Your task to perform on an android device: change notification settings in the gmail app Image 0: 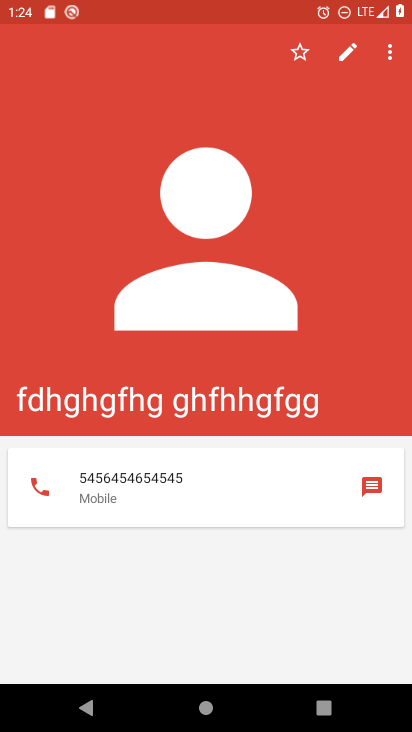
Step 0: press home button
Your task to perform on an android device: change notification settings in the gmail app Image 1: 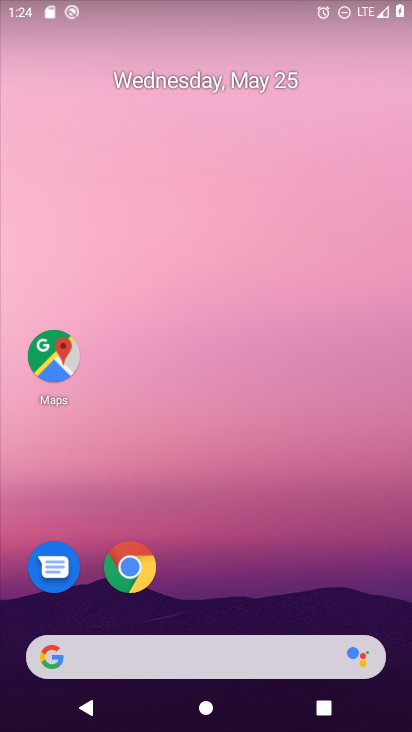
Step 1: drag from (395, 716) to (369, 213)
Your task to perform on an android device: change notification settings in the gmail app Image 2: 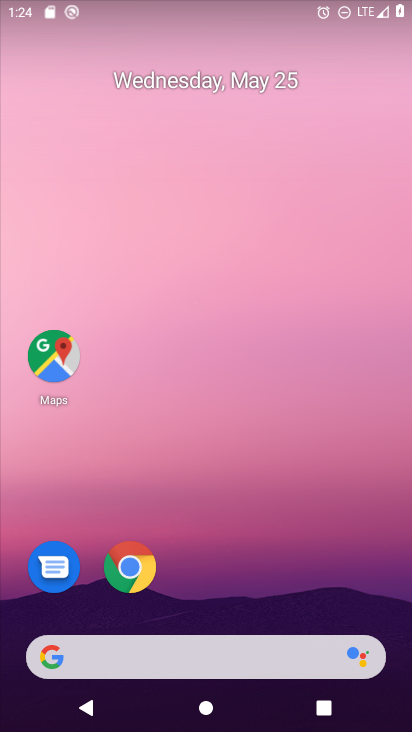
Step 2: drag from (402, 713) to (377, 323)
Your task to perform on an android device: change notification settings in the gmail app Image 3: 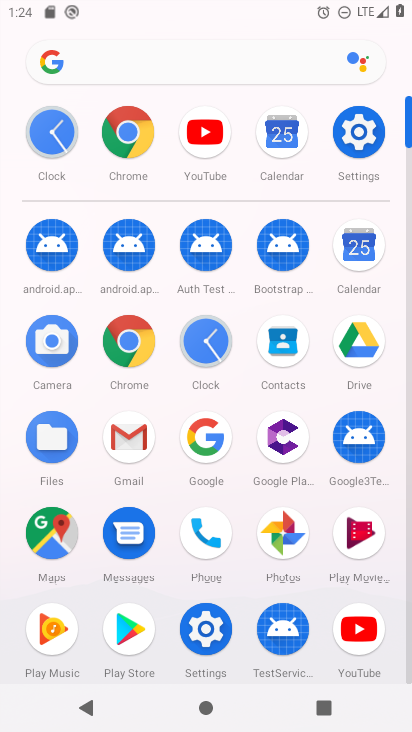
Step 3: click (132, 427)
Your task to perform on an android device: change notification settings in the gmail app Image 4: 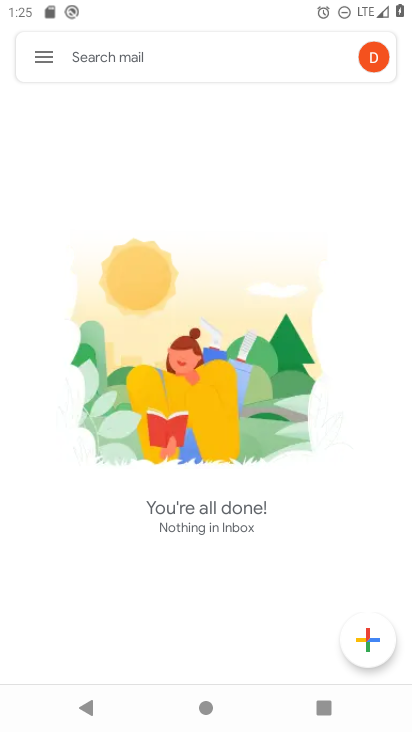
Step 4: click (44, 52)
Your task to perform on an android device: change notification settings in the gmail app Image 5: 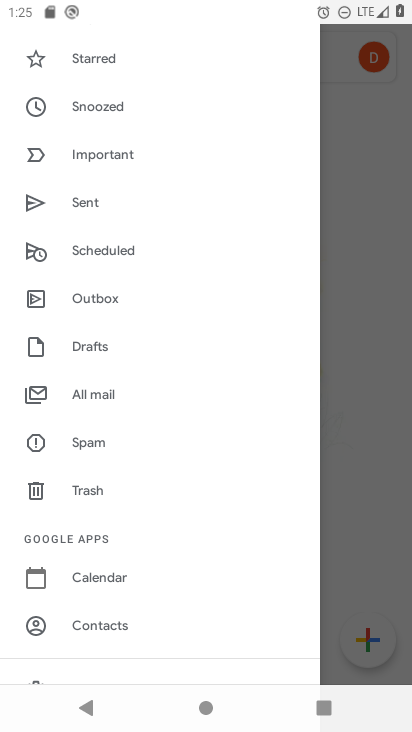
Step 5: drag from (178, 601) to (192, 305)
Your task to perform on an android device: change notification settings in the gmail app Image 6: 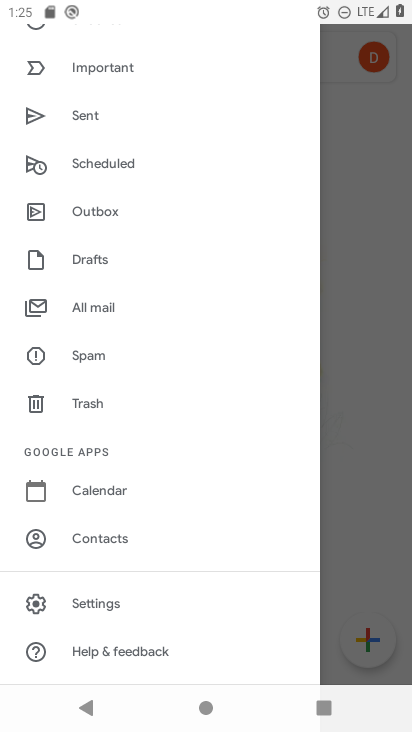
Step 6: drag from (244, 198) to (296, 555)
Your task to perform on an android device: change notification settings in the gmail app Image 7: 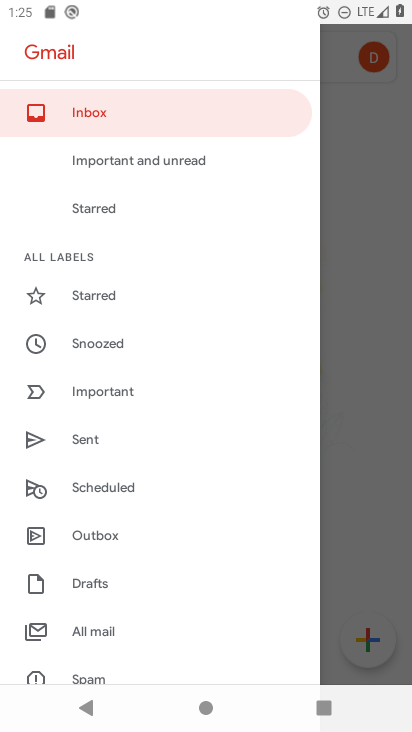
Step 7: drag from (206, 654) to (216, 364)
Your task to perform on an android device: change notification settings in the gmail app Image 8: 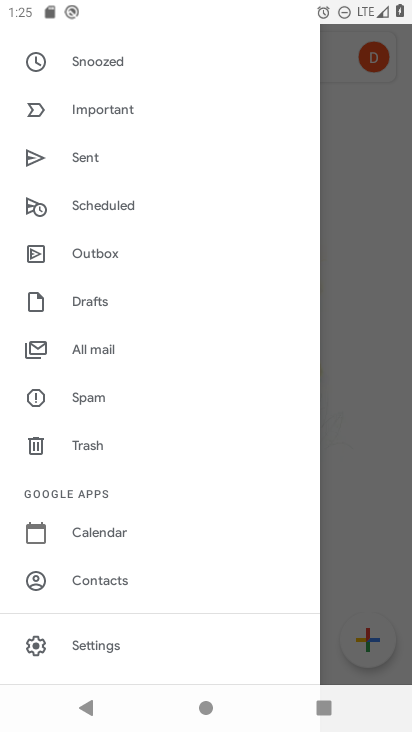
Step 8: click (67, 647)
Your task to perform on an android device: change notification settings in the gmail app Image 9: 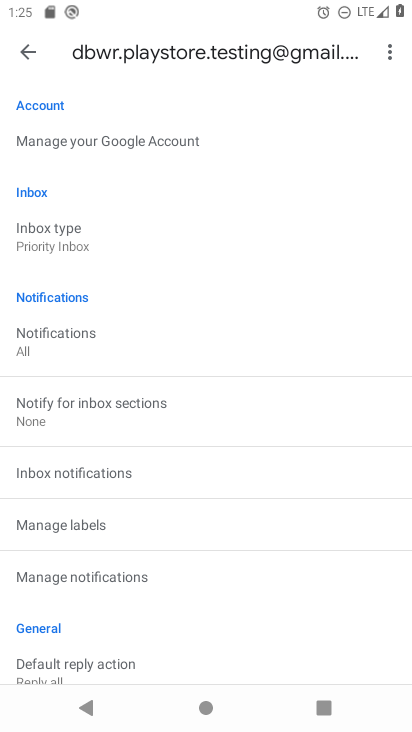
Step 9: click (40, 335)
Your task to perform on an android device: change notification settings in the gmail app Image 10: 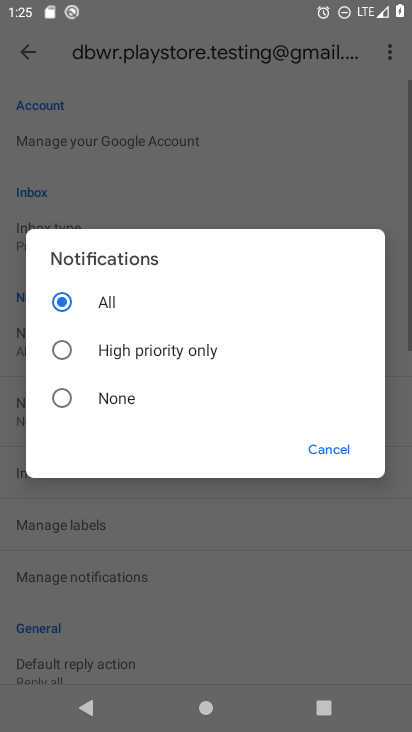
Step 10: click (30, 46)
Your task to perform on an android device: change notification settings in the gmail app Image 11: 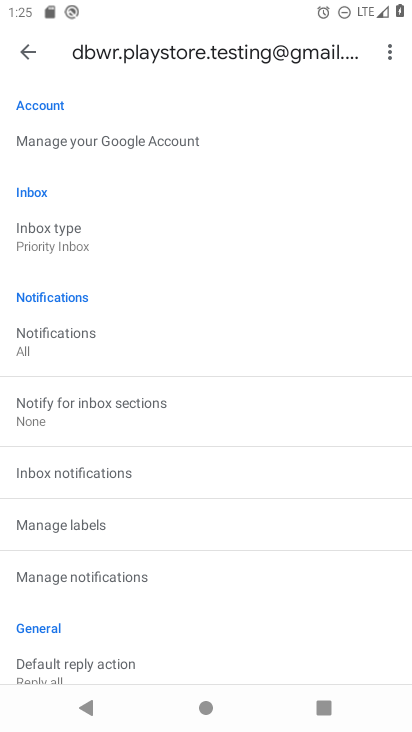
Step 11: click (28, 56)
Your task to perform on an android device: change notification settings in the gmail app Image 12: 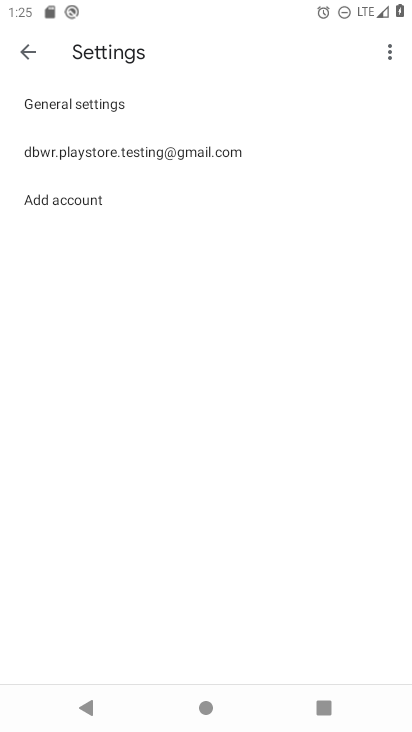
Step 12: click (54, 101)
Your task to perform on an android device: change notification settings in the gmail app Image 13: 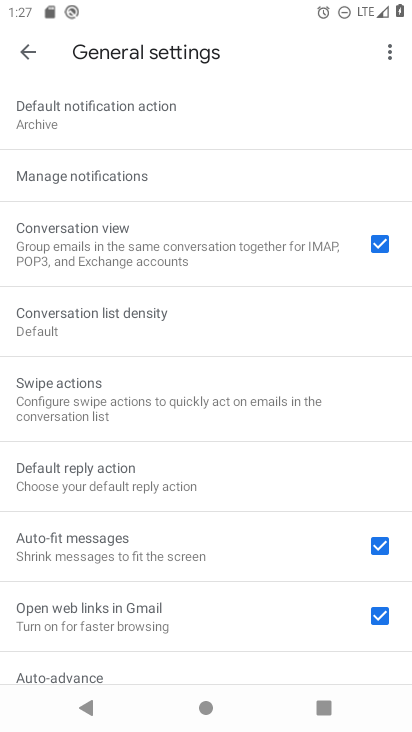
Step 13: click (98, 182)
Your task to perform on an android device: change notification settings in the gmail app Image 14: 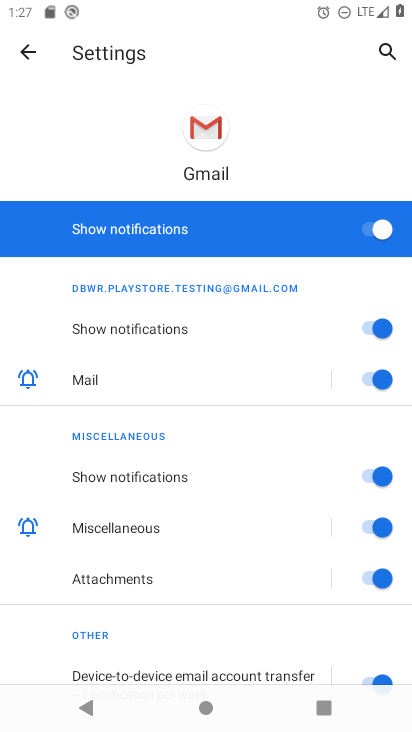
Step 14: click (369, 226)
Your task to perform on an android device: change notification settings in the gmail app Image 15: 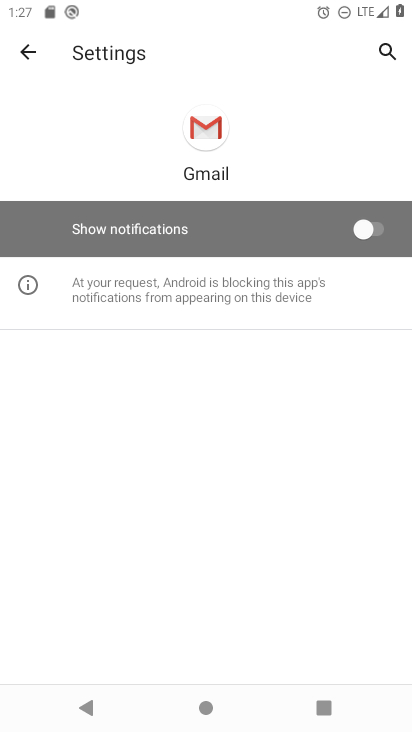
Step 15: task complete